Your task to perform on an android device: turn off notifications settings in the gmail app Image 0: 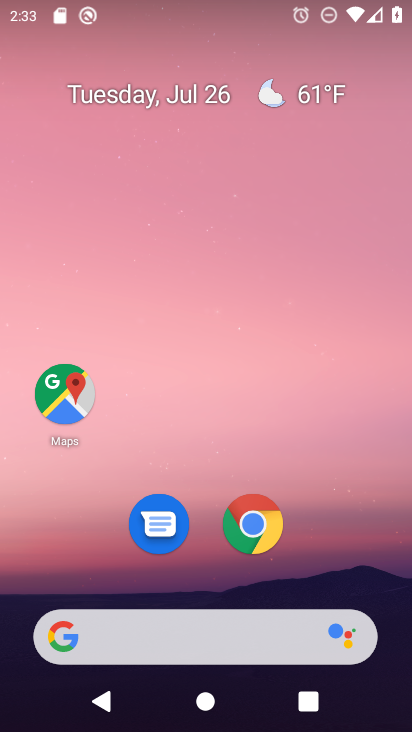
Step 0: press home button
Your task to perform on an android device: turn off notifications settings in the gmail app Image 1: 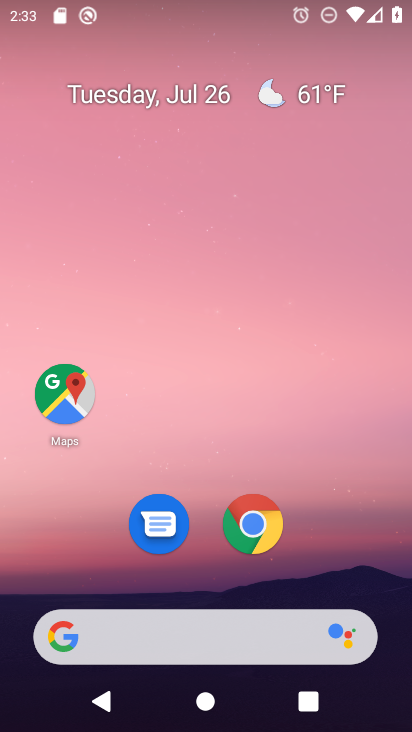
Step 1: drag from (160, 625) to (298, 136)
Your task to perform on an android device: turn off notifications settings in the gmail app Image 2: 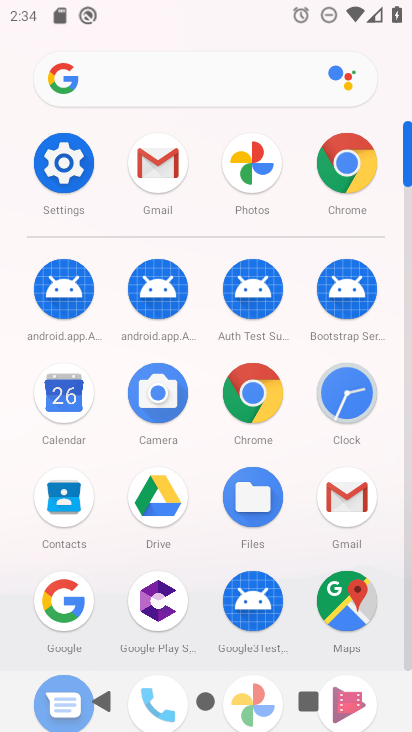
Step 2: click (159, 180)
Your task to perform on an android device: turn off notifications settings in the gmail app Image 3: 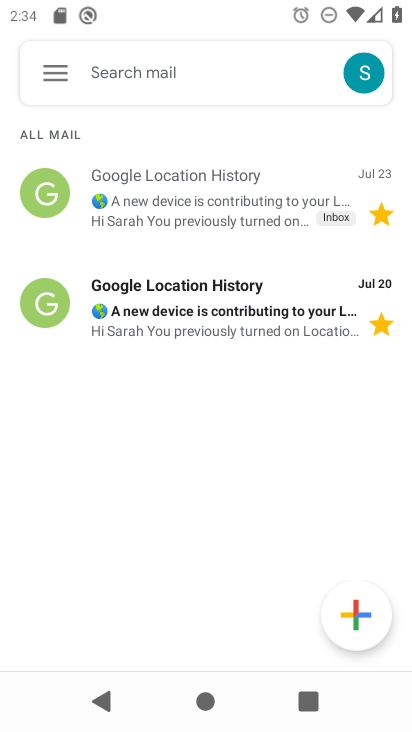
Step 3: click (56, 76)
Your task to perform on an android device: turn off notifications settings in the gmail app Image 4: 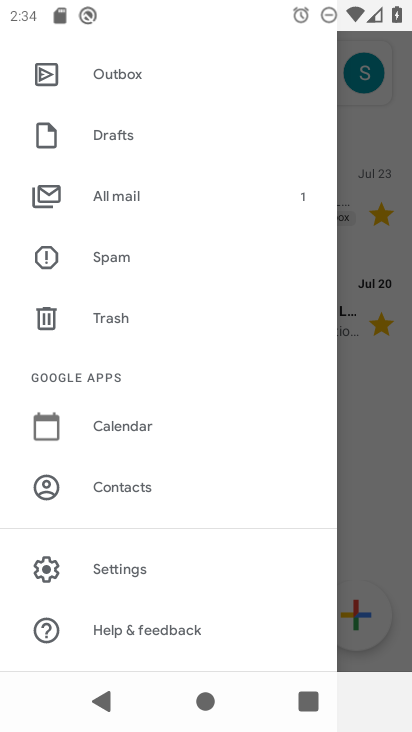
Step 4: click (135, 573)
Your task to perform on an android device: turn off notifications settings in the gmail app Image 5: 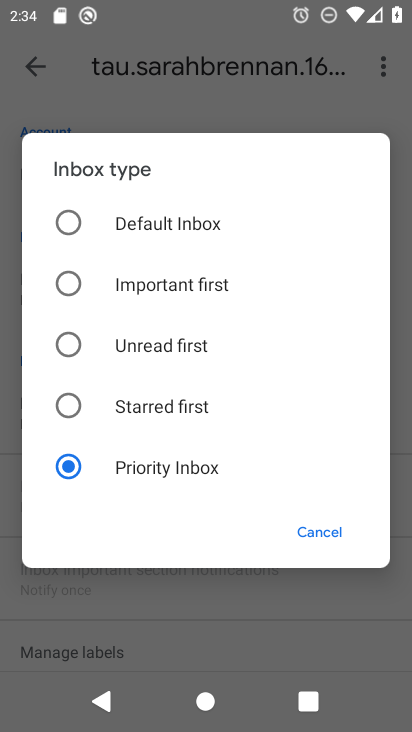
Step 5: click (309, 536)
Your task to perform on an android device: turn off notifications settings in the gmail app Image 6: 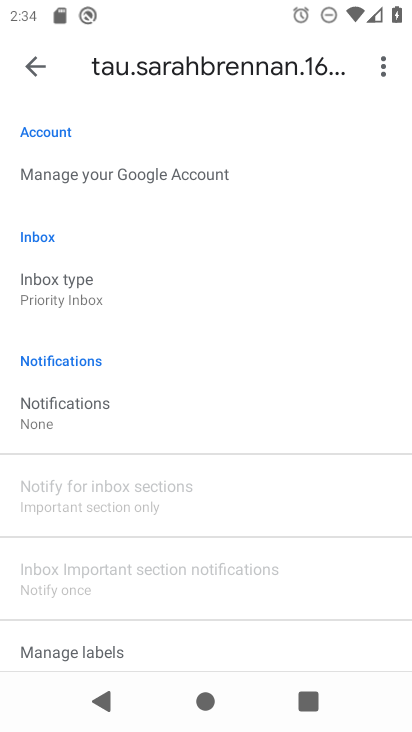
Step 6: click (83, 405)
Your task to perform on an android device: turn off notifications settings in the gmail app Image 7: 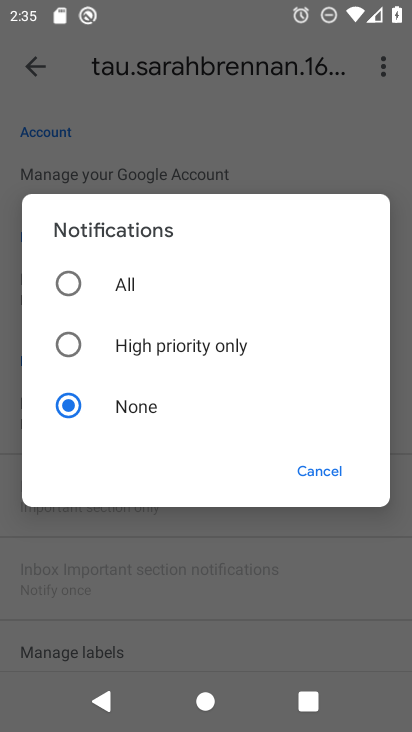
Step 7: task complete